Your task to perform on an android device: Open wifi settings Image 0: 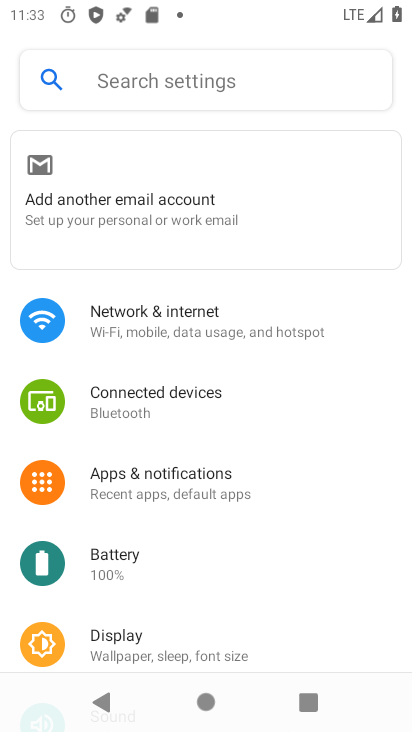
Step 0: press home button
Your task to perform on an android device: Open wifi settings Image 1: 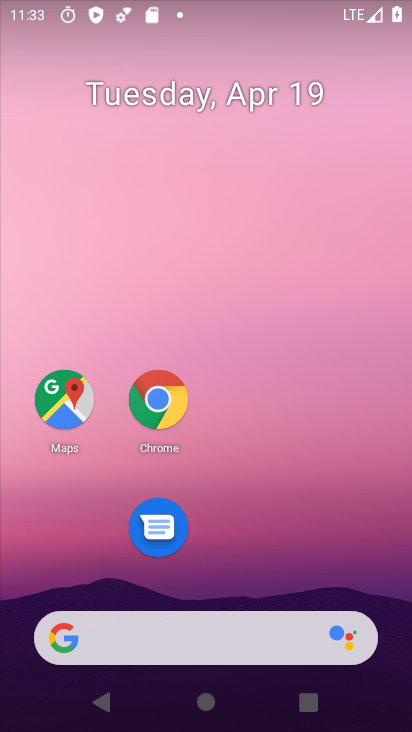
Step 1: drag from (250, 480) to (237, 94)
Your task to perform on an android device: Open wifi settings Image 2: 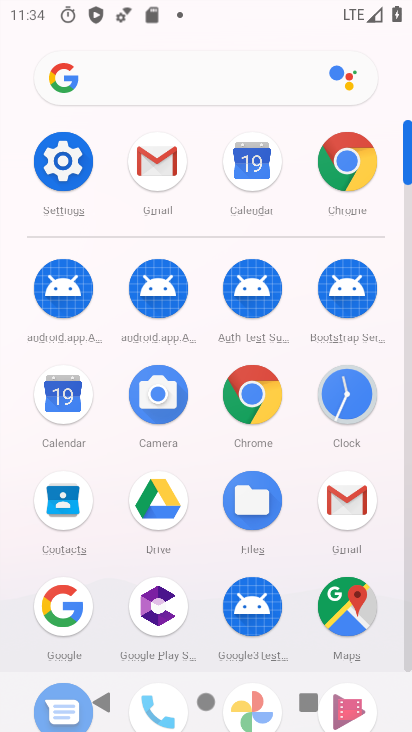
Step 2: drag from (118, 547) to (124, 332)
Your task to perform on an android device: Open wifi settings Image 3: 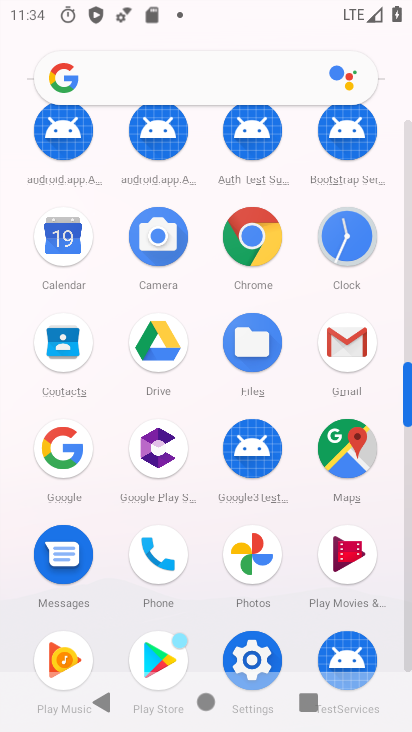
Step 3: click (250, 647)
Your task to perform on an android device: Open wifi settings Image 4: 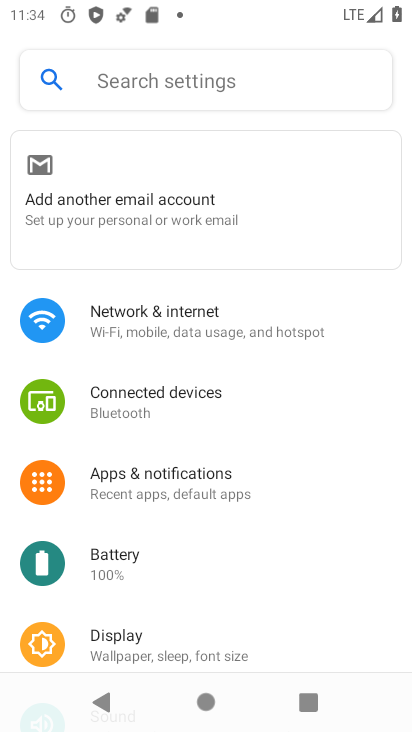
Step 4: drag from (238, 607) to (252, 289)
Your task to perform on an android device: Open wifi settings Image 5: 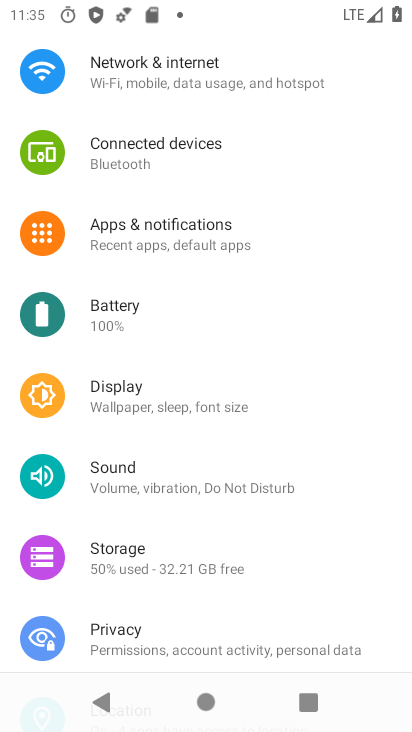
Step 5: click (212, 70)
Your task to perform on an android device: Open wifi settings Image 6: 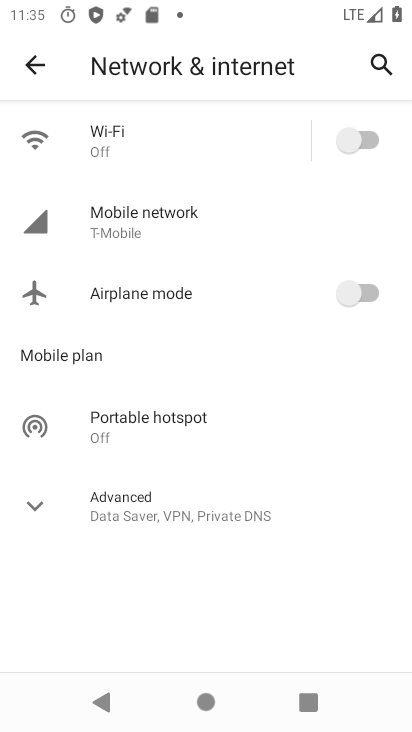
Step 6: click (140, 146)
Your task to perform on an android device: Open wifi settings Image 7: 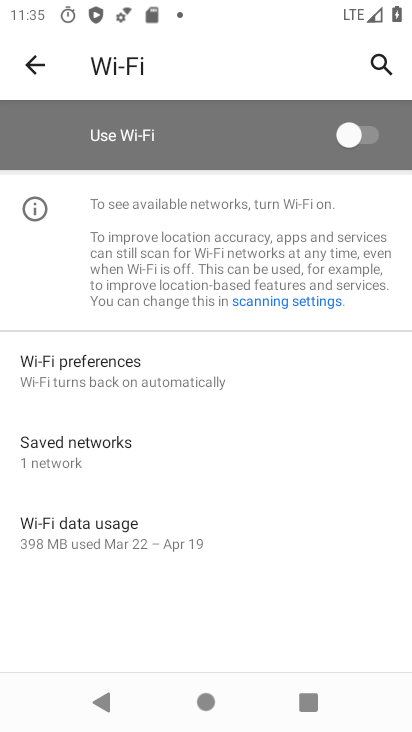
Step 7: task complete